Your task to perform on an android device: Search for Mexican restaurants on Maps Image 0: 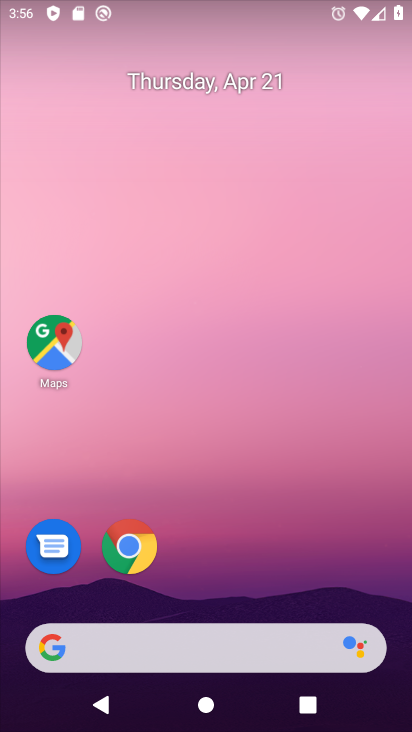
Step 0: drag from (248, 357) to (248, 111)
Your task to perform on an android device: Search for Mexican restaurants on Maps Image 1: 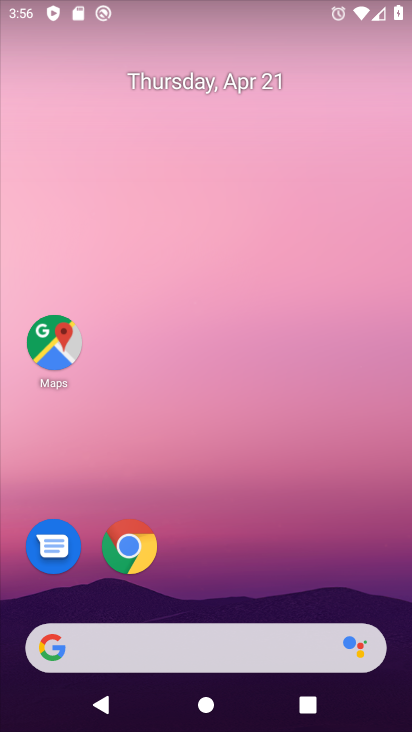
Step 1: drag from (255, 534) to (265, 66)
Your task to perform on an android device: Search for Mexican restaurants on Maps Image 2: 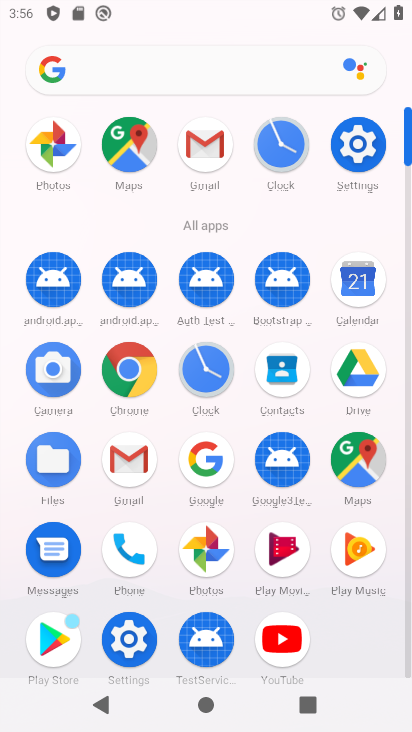
Step 2: click (129, 162)
Your task to perform on an android device: Search for Mexican restaurants on Maps Image 3: 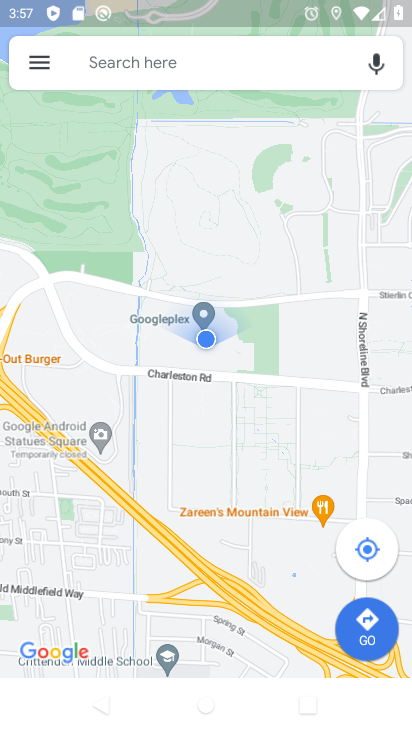
Step 3: click (197, 66)
Your task to perform on an android device: Search for Mexican restaurants on Maps Image 4: 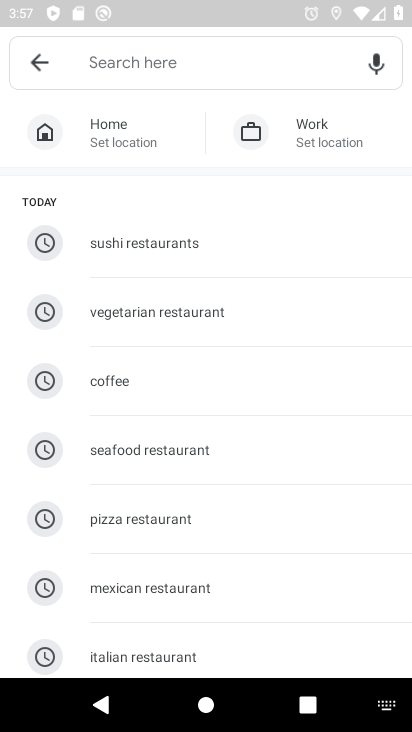
Step 4: type "mexican restaurants"
Your task to perform on an android device: Search for Mexican restaurants on Maps Image 5: 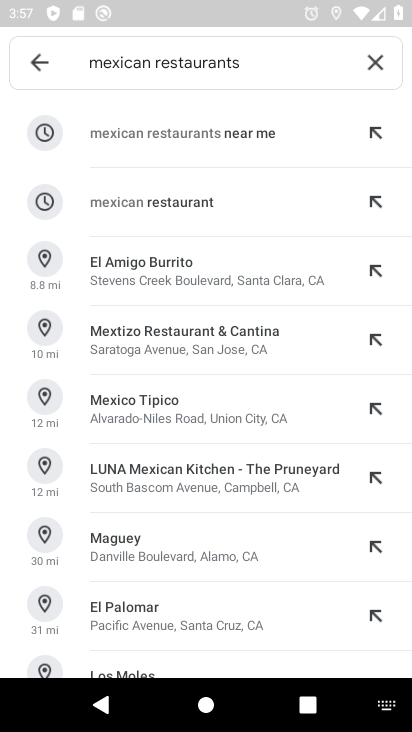
Step 5: press enter
Your task to perform on an android device: Search for Mexican restaurants on Maps Image 6: 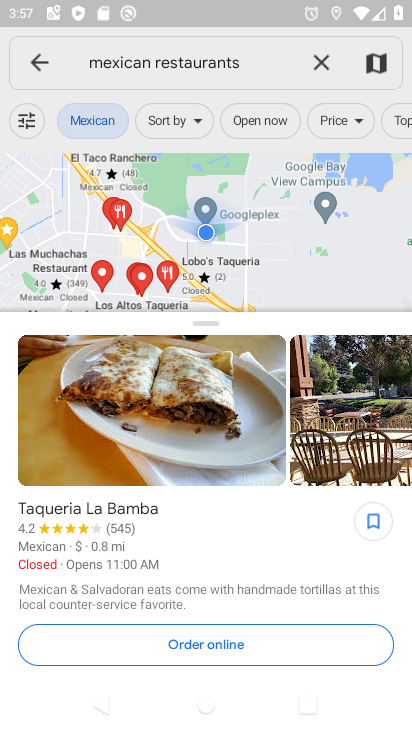
Step 6: task complete